Your task to perform on an android device: Open Android settings Image 0: 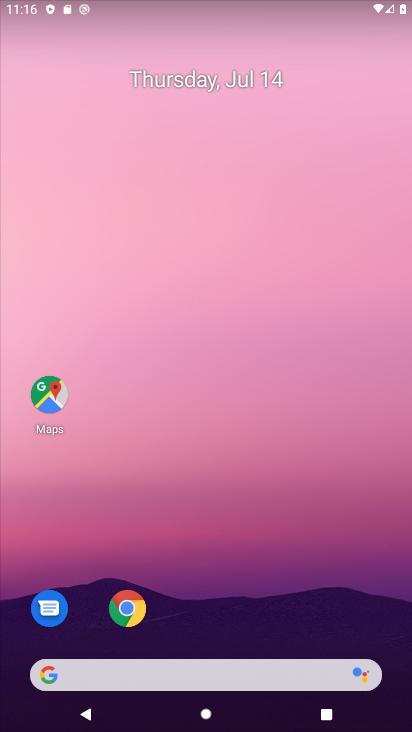
Step 0: drag from (287, 615) to (309, 185)
Your task to perform on an android device: Open Android settings Image 1: 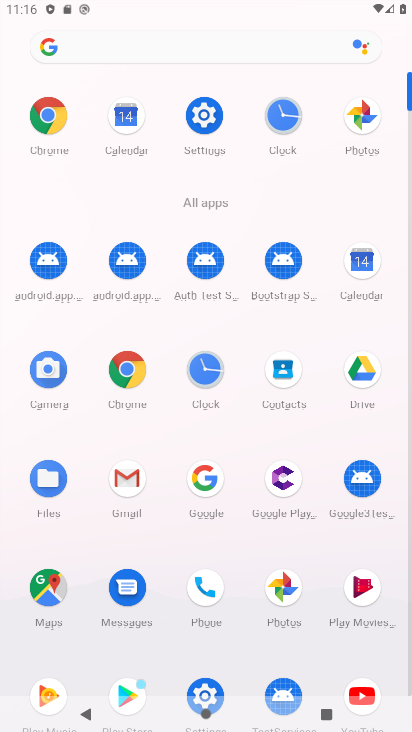
Step 1: click (209, 107)
Your task to perform on an android device: Open Android settings Image 2: 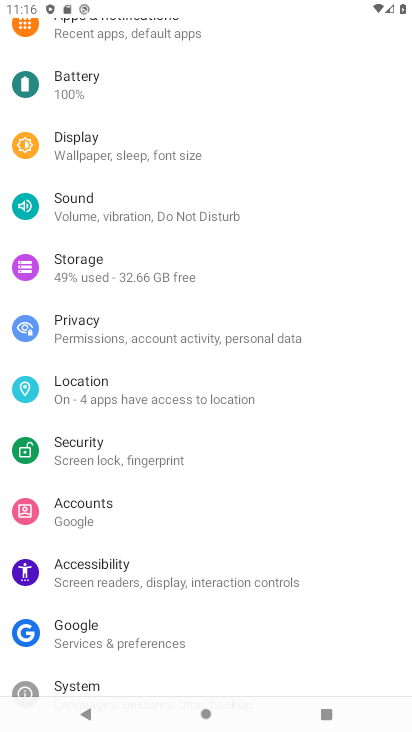
Step 2: drag from (167, 656) to (185, 119)
Your task to perform on an android device: Open Android settings Image 3: 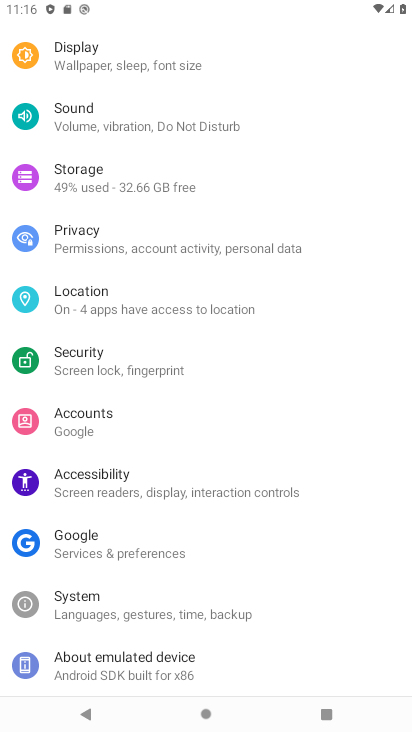
Step 3: click (167, 671)
Your task to perform on an android device: Open Android settings Image 4: 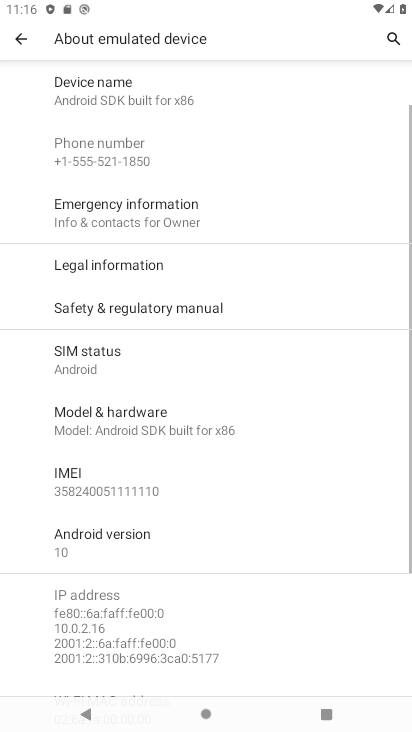
Step 4: task complete